Your task to perform on an android device: Toggle the flashlight Image 0: 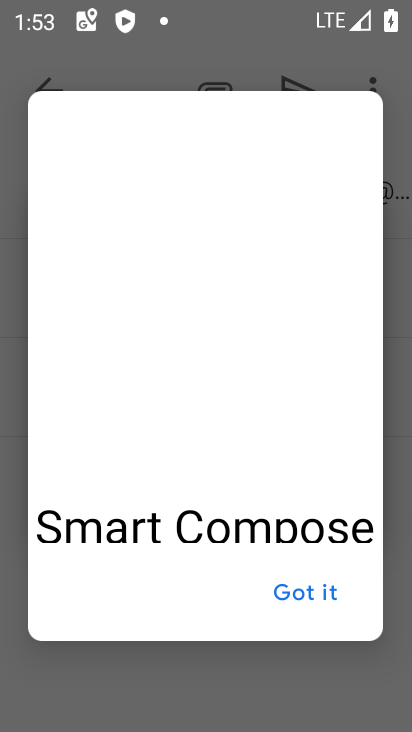
Step 0: press home button
Your task to perform on an android device: Toggle the flashlight Image 1: 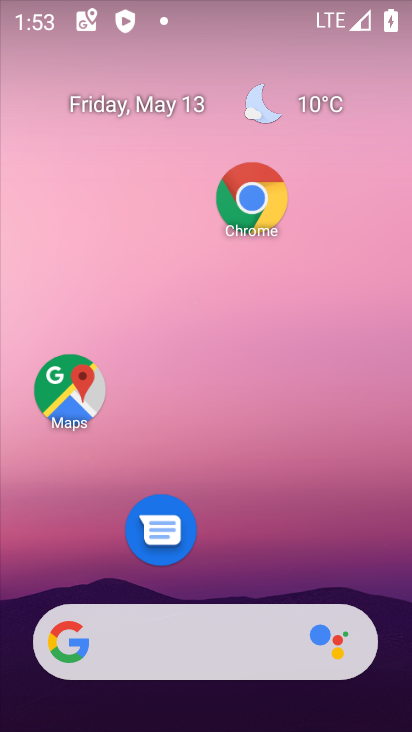
Step 1: drag from (195, 600) to (132, 64)
Your task to perform on an android device: Toggle the flashlight Image 2: 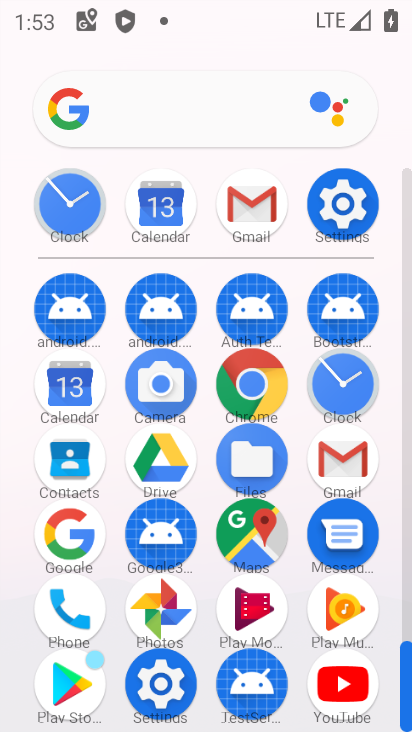
Step 2: click (332, 201)
Your task to perform on an android device: Toggle the flashlight Image 3: 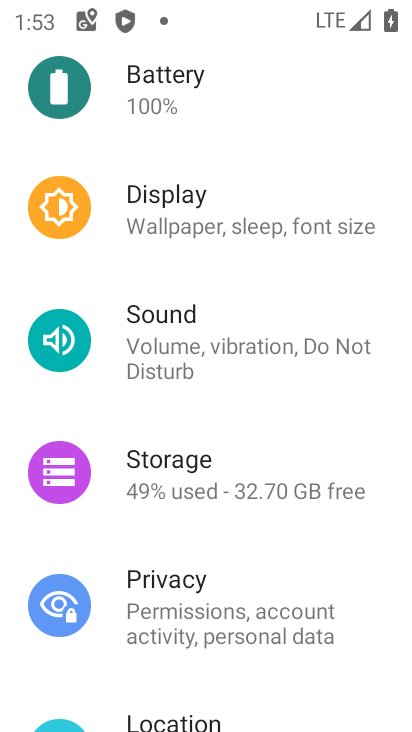
Step 3: drag from (268, 107) to (156, 644)
Your task to perform on an android device: Toggle the flashlight Image 4: 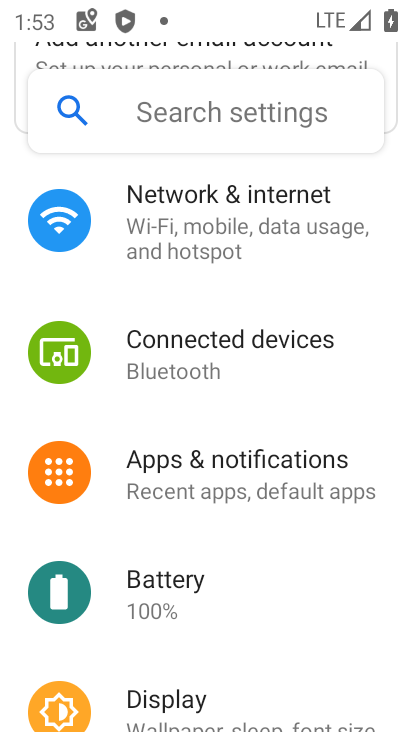
Step 4: click (140, 101)
Your task to perform on an android device: Toggle the flashlight Image 5: 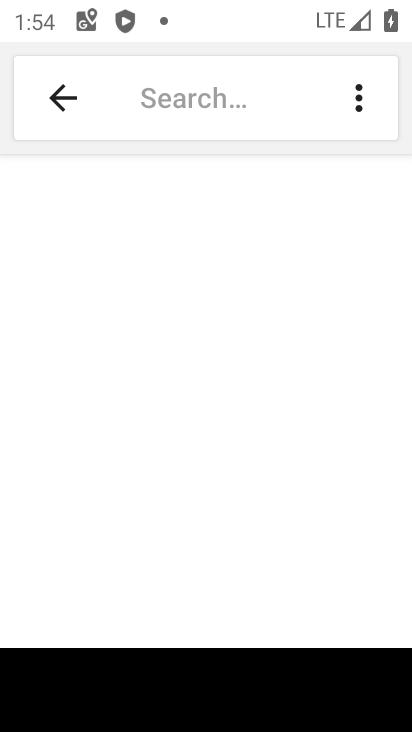
Step 5: type "flashlight"
Your task to perform on an android device: Toggle the flashlight Image 6: 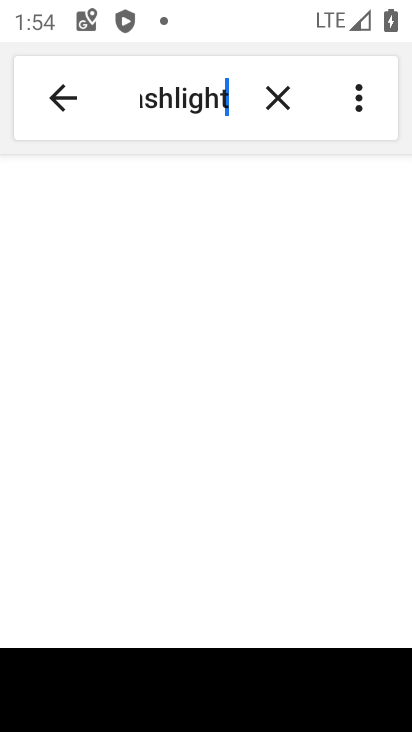
Step 6: task complete